Your task to perform on an android device: choose inbox layout in the gmail app Image 0: 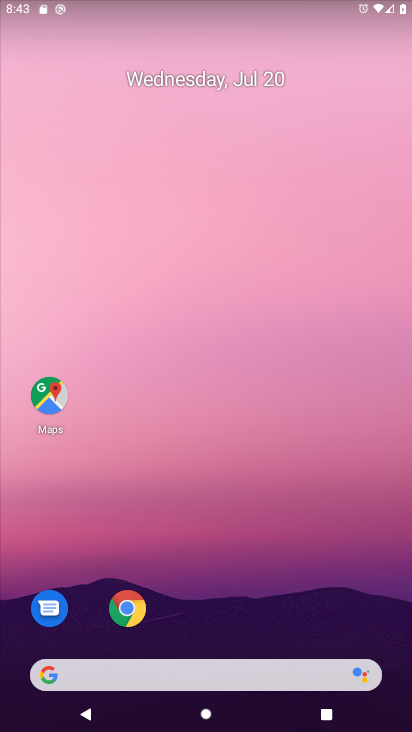
Step 0: drag from (252, 610) to (243, 156)
Your task to perform on an android device: choose inbox layout in the gmail app Image 1: 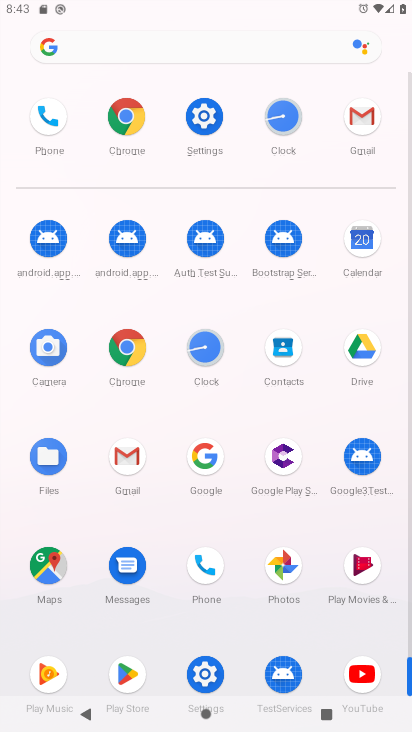
Step 1: click (357, 114)
Your task to perform on an android device: choose inbox layout in the gmail app Image 2: 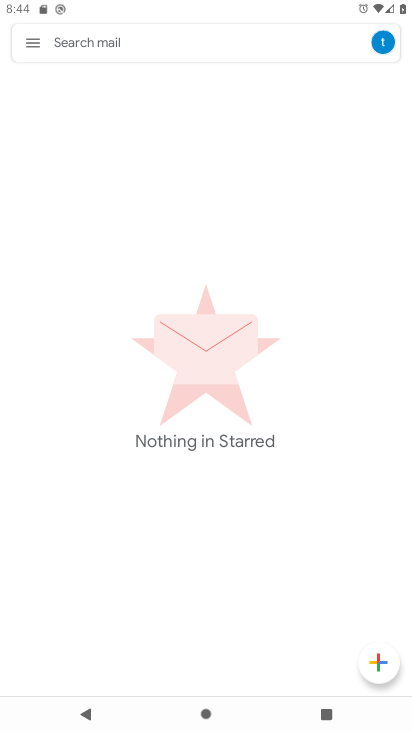
Step 2: click (41, 36)
Your task to perform on an android device: choose inbox layout in the gmail app Image 3: 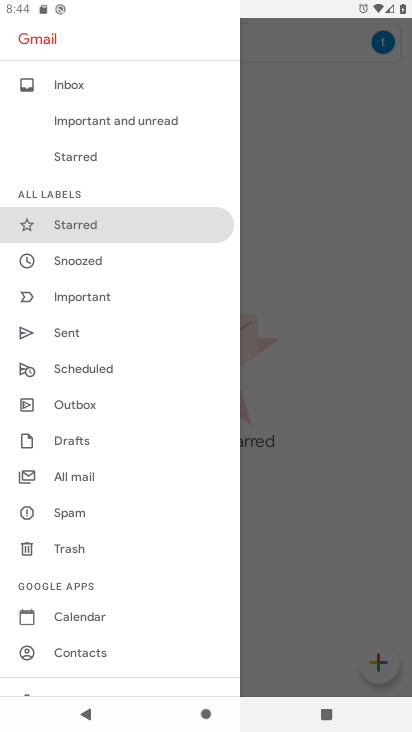
Step 3: drag from (103, 660) to (128, 324)
Your task to perform on an android device: choose inbox layout in the gmail app Image 4: 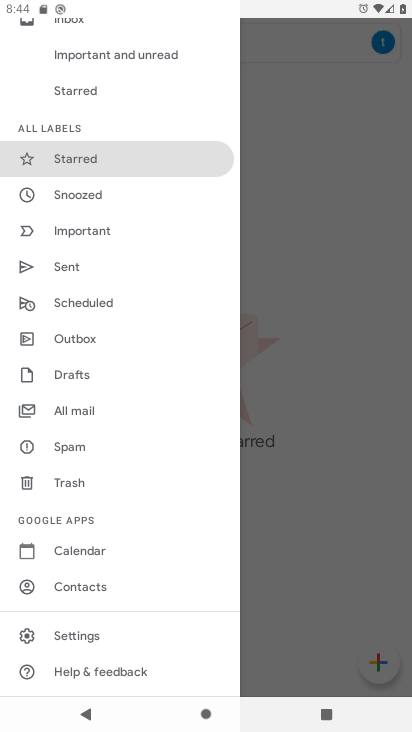
Step 4: click (91, 640)
Your task to perform on an android device: choose inbox layout in the gmail app Image 5: 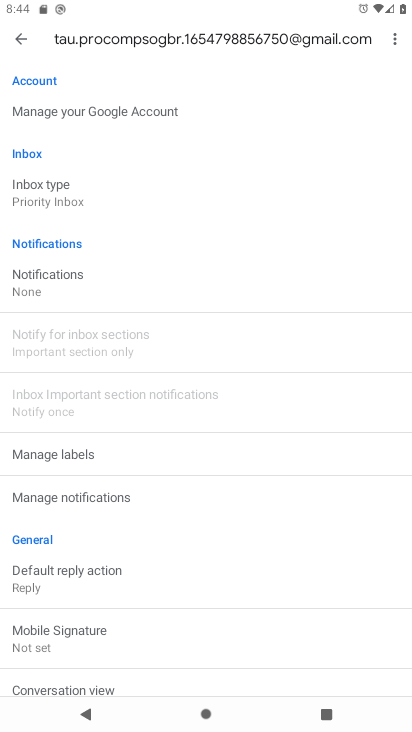
Step 5: click (79, 197)
Your task to perform on an android device: choose inbox layout in the gmail app Image 6: 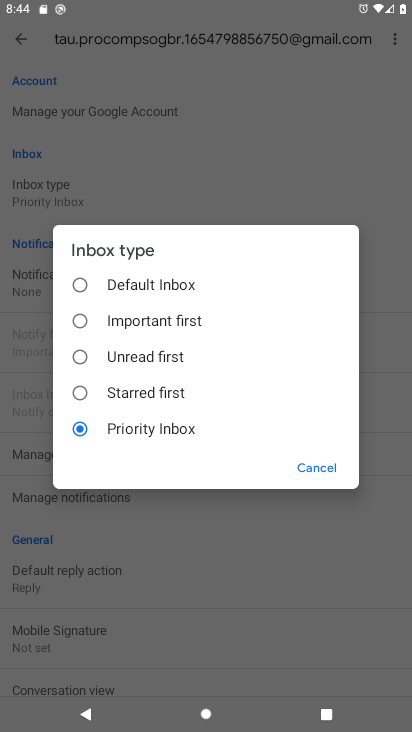
Step 6: click (130, 356)
Your task to perform on an android device: choose inbox layout in the gmail app Image 7: 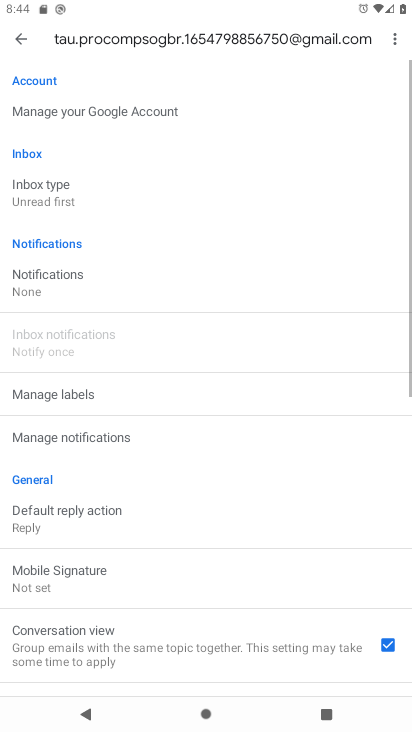
Step 7: task complete